Your task to perform on an android device: choose inbox layout in the gmail app Image 0: 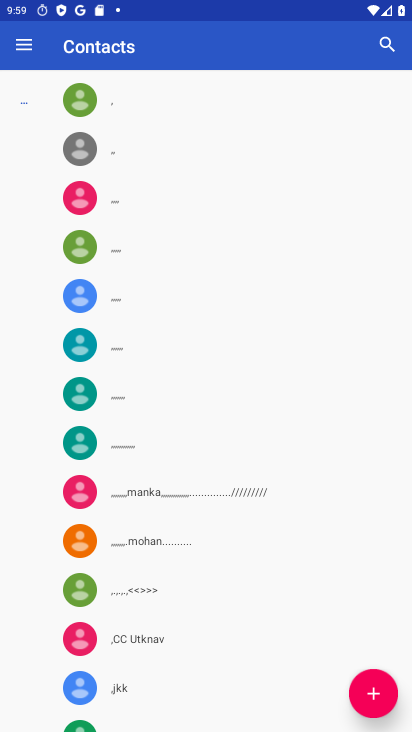
Step 0: press home button
Your task to perform on an android device: choose inbox layout in the gmail app Image 1: 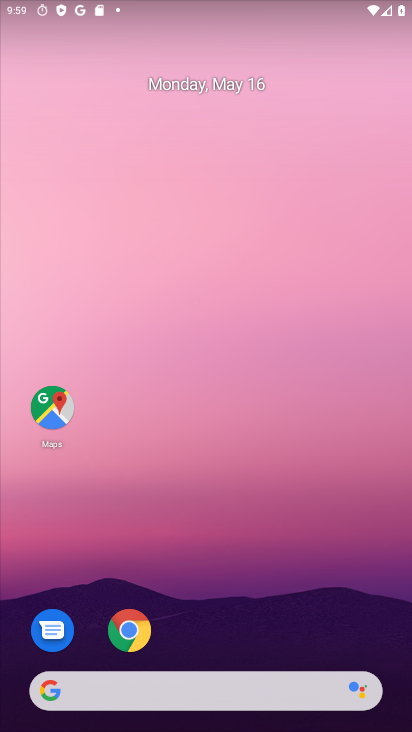
Step 1: drag from (222, 582) to (246, 13)
Your task to perform on an android device: choose inbox layout in the gmail app Image 2: 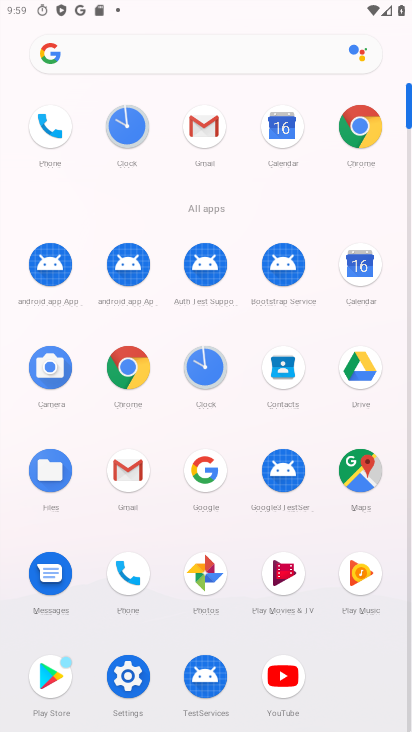
Step 2: click (126, 465)
Your task to perform on an android device: choose inbox layout in the gmail app Image 3: 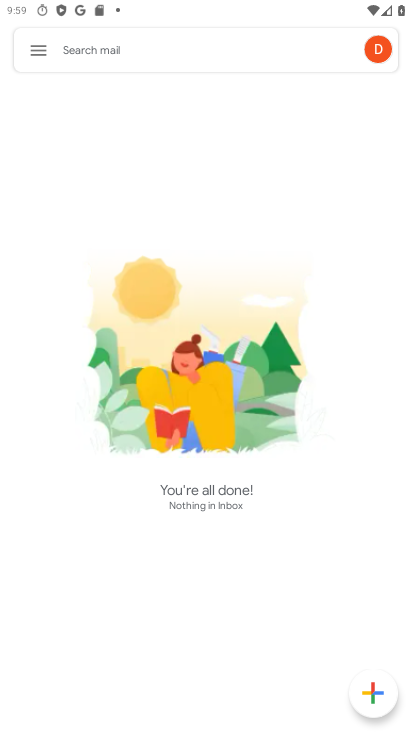
Step 3: click (41, 69)
Your task to perform on an android device: choose inbox layout in the gmail app Image 4: 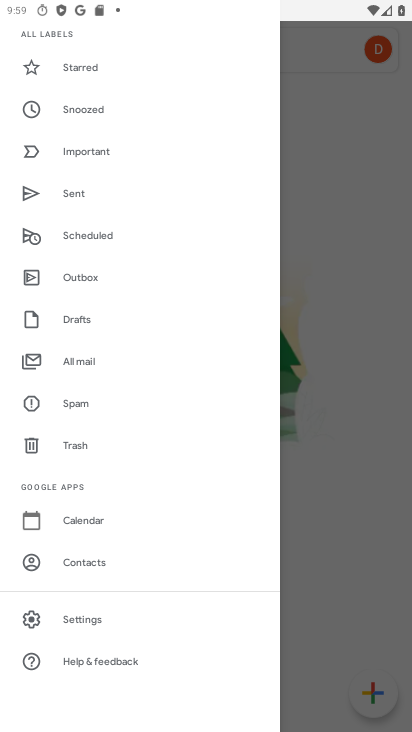
Step 4: click (89, 622)
Your task to perform on an android device: choose inbox layout in the gmail app Image 5: 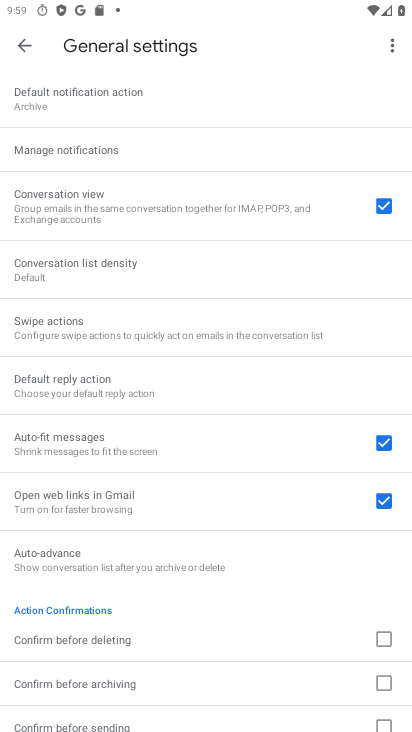
Step 5: click (21, 40)
Your task to perform on an android device: choose inbox layout in the gmail app Image 6: 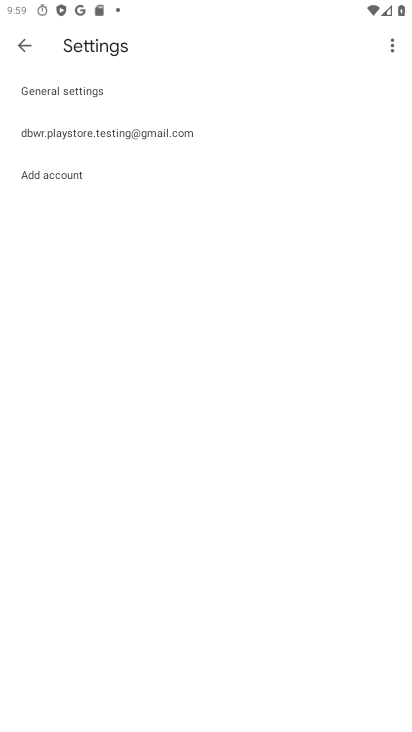
Step 6: click (128, 137)
Your task to perform on an android device: choose inbox layout in the gmail app Image 7: 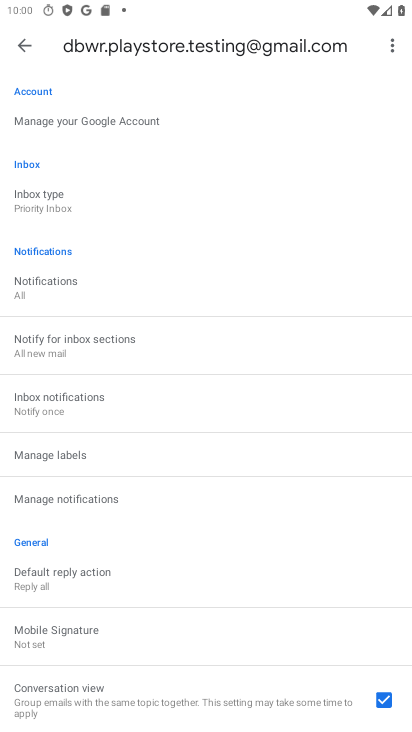
Step 7: click (69, 207)
Your task to perform on an android device: choose inbox layout in the gmail app Image 8: 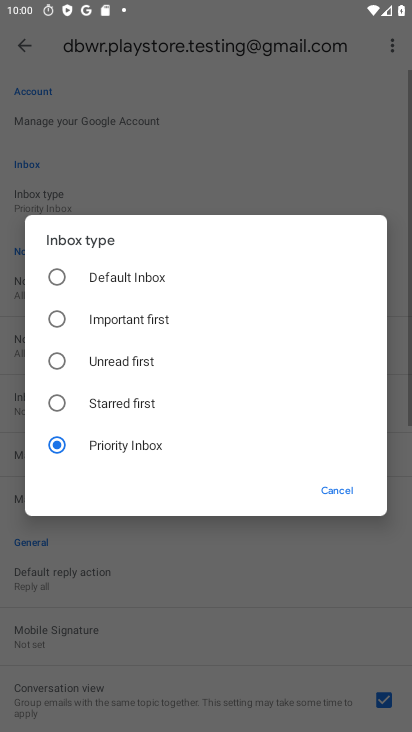
Step 8: click (86, 280)
Your task to perform on an android device: choose inbox layout in the gmail app Image 9: 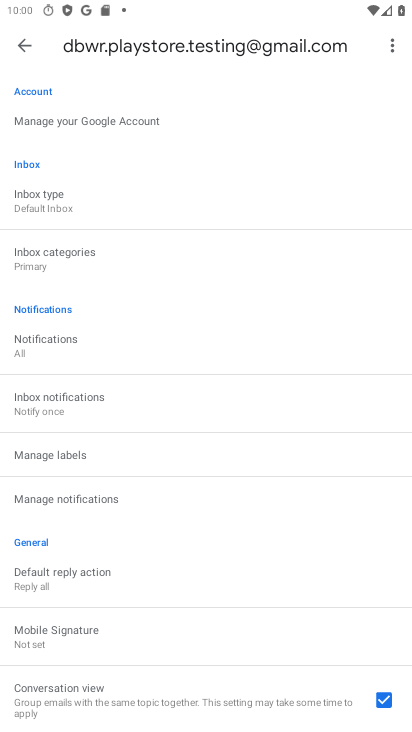
Step 9: task complete